Your task to perform on an android device: Open wifi settings Image 0: 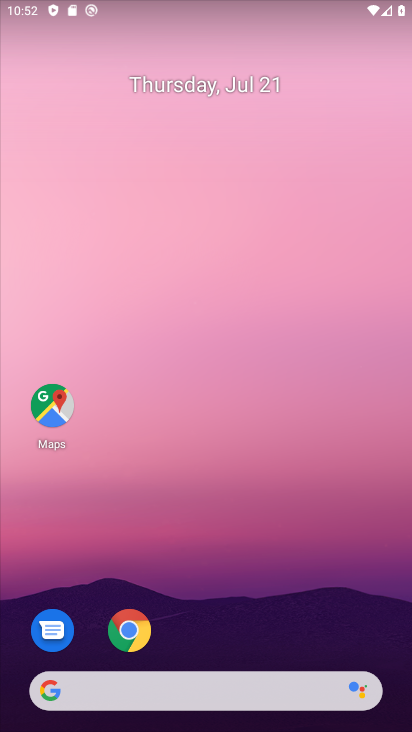
Step 0: drag from (204, 708) to (214, 151)
Your task to perform on an android device: Open wifi settings Image 1: 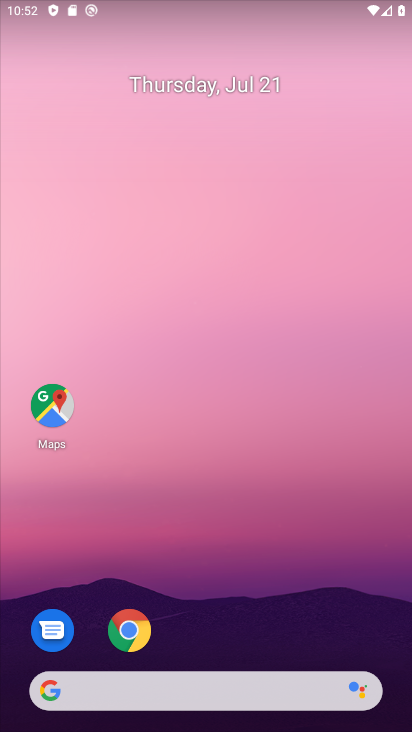
Step 1: drag from (234, 726) to (220, 204)
Your task to perform on an android device: Open wifi settings Image 2: 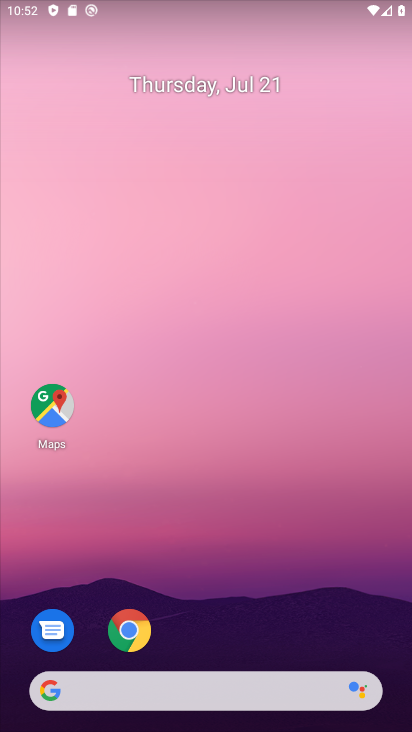
Step 2: drag from (220, 726) to (178, 86)
Your task to perform on an android device: Open wifi settings Image 3: 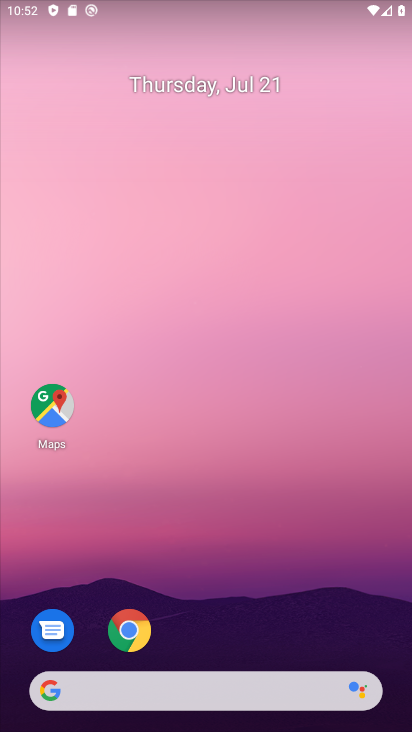
Step 3: drag from (246, 724) to (246, 106)
Your task to perform on an android device: Open wifi settings Image 4: 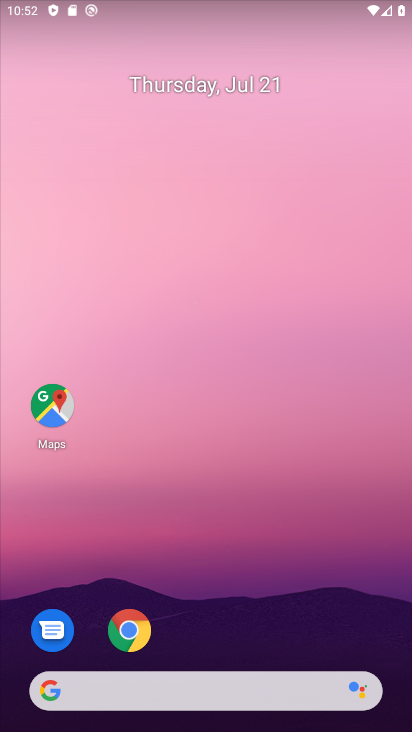
Step 4: drag from (268, 726) to (255, 232)
Your task to perform on an android device: Open wifi settings Image 5: 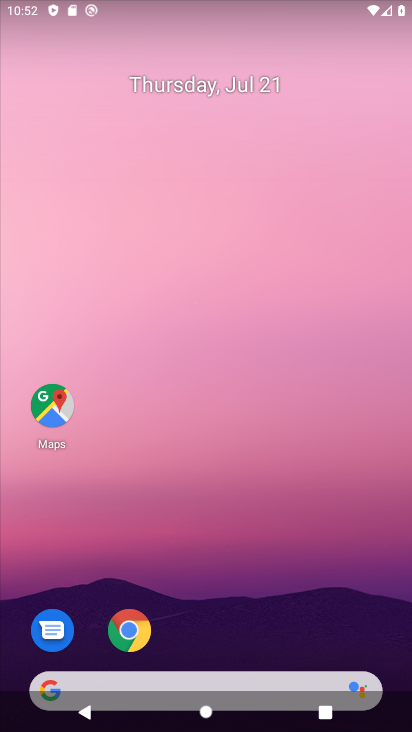
Step 5: drag from (241, 713) to (273, 443)
Your task to perform on an android device: Open wifi settings Image 6: 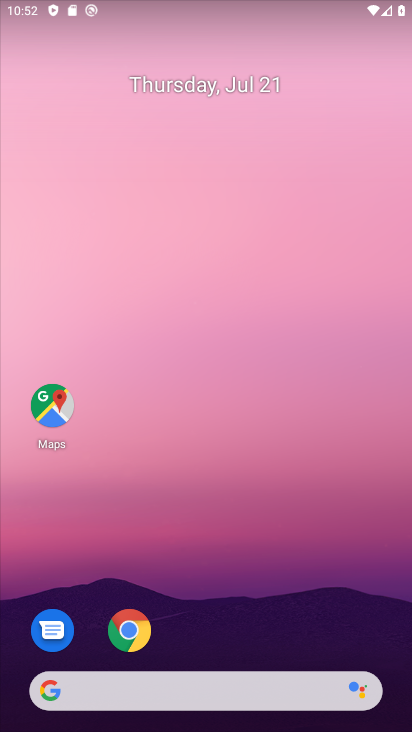
Step 6: drag from (219, 699) to (226, 210)
Your task to perform on an android device: Open wifi settings Image 7: 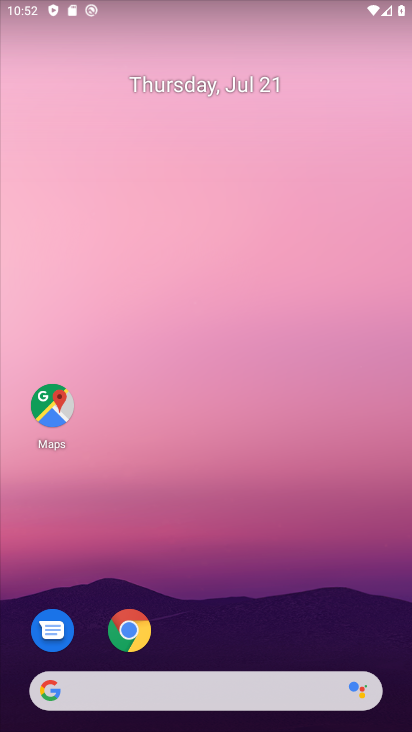
Step 7: drag from (229, 668) to (224, 142)
Your task to perform on an android device: Open wifi settings Image 8: 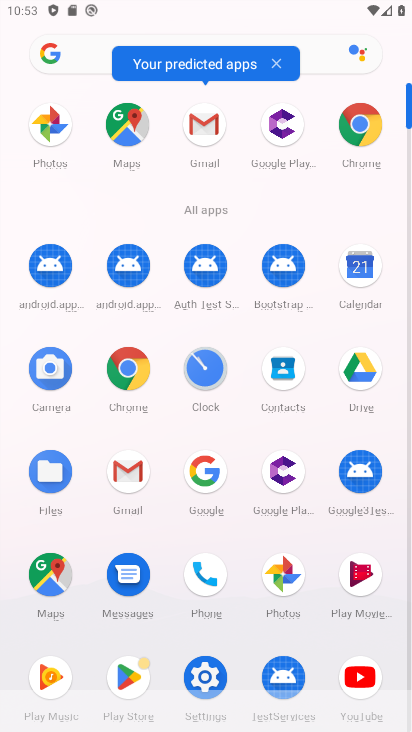
Step 8: click (212, 676)
Your task to perform on an android device: Open wifi settings Image 9: 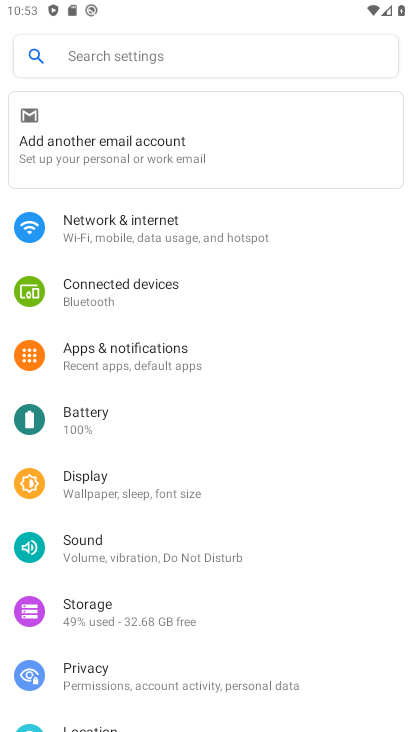
Step 9: click (136, 226)
Your task to perform on an android device: Open wifi settings Image 10: 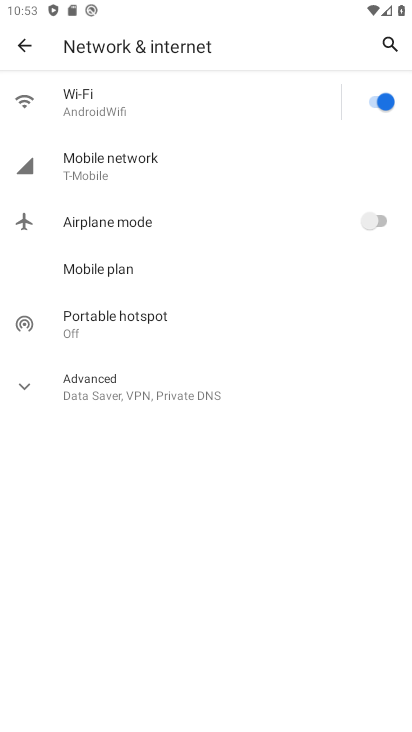
Step 10: click (95, 109)
Your task to perform on an android device: Open wifi settings Image 11: 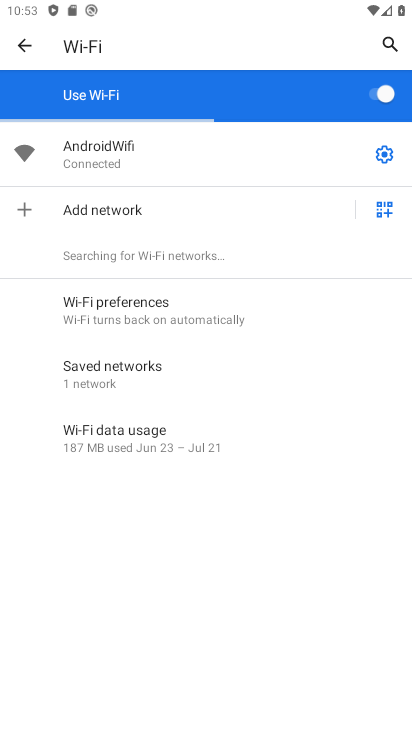
Step 11: task complete